Your task to perform on an android device: open app "Paramount+ | Peak Streaming" Image 0: 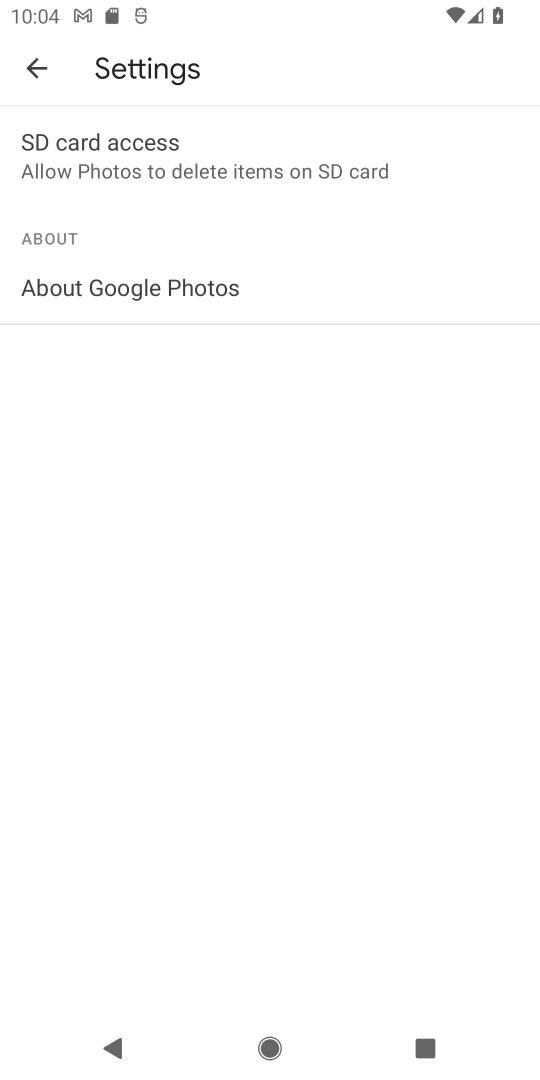
Step 0: press home button
Your task to perform on an android device: open app "Paramount+ | Peak Streaming" Image 1: 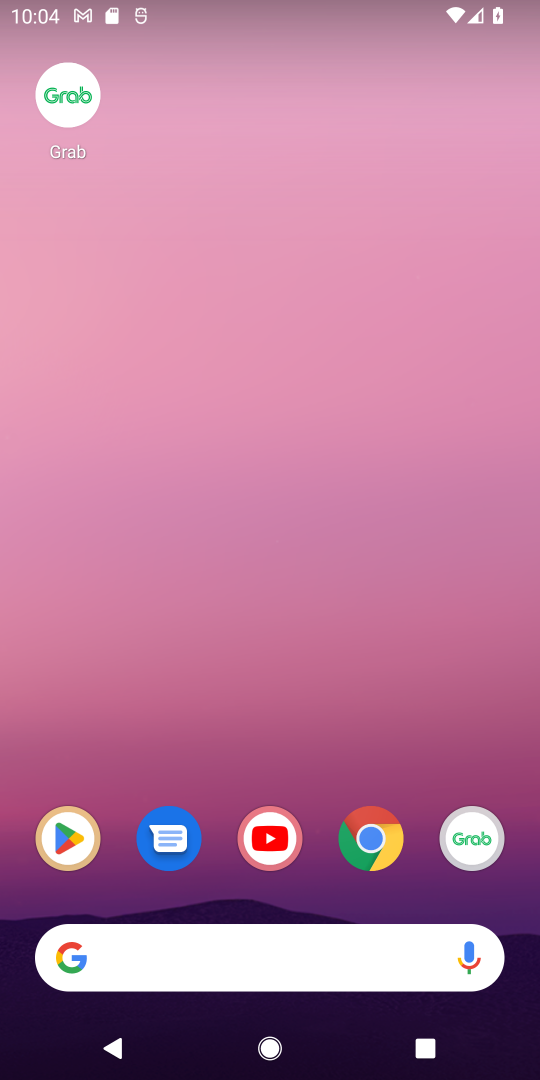
Step 1: click (76, 847)
Your task to perform on an android device: open app "Paramount+ | Peak Streaming" Image 2: 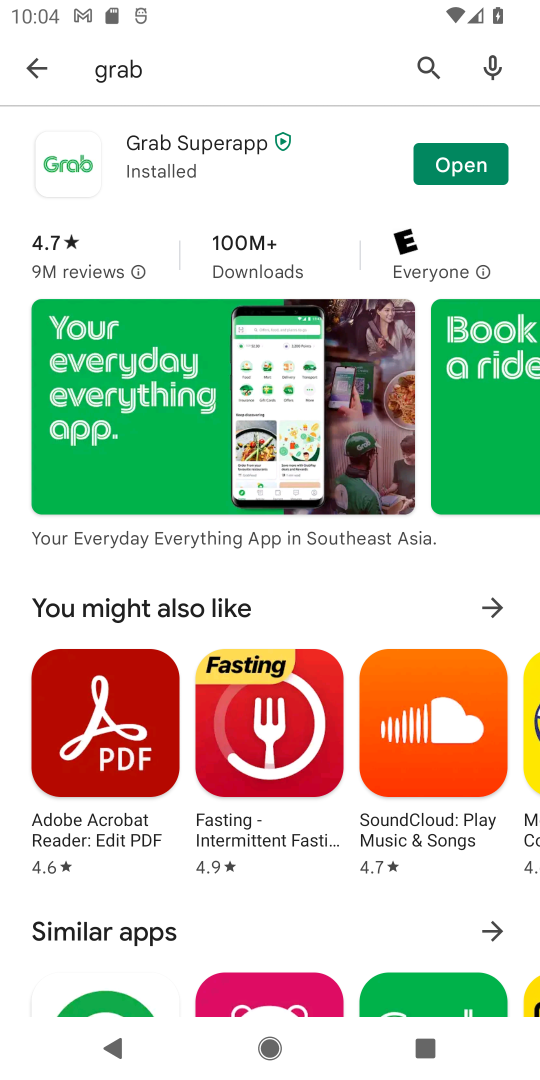
Step 2: click (210, 65)
Your task to perform on an android device: open app "Paramount+ | Peak Streaming" Image 3: 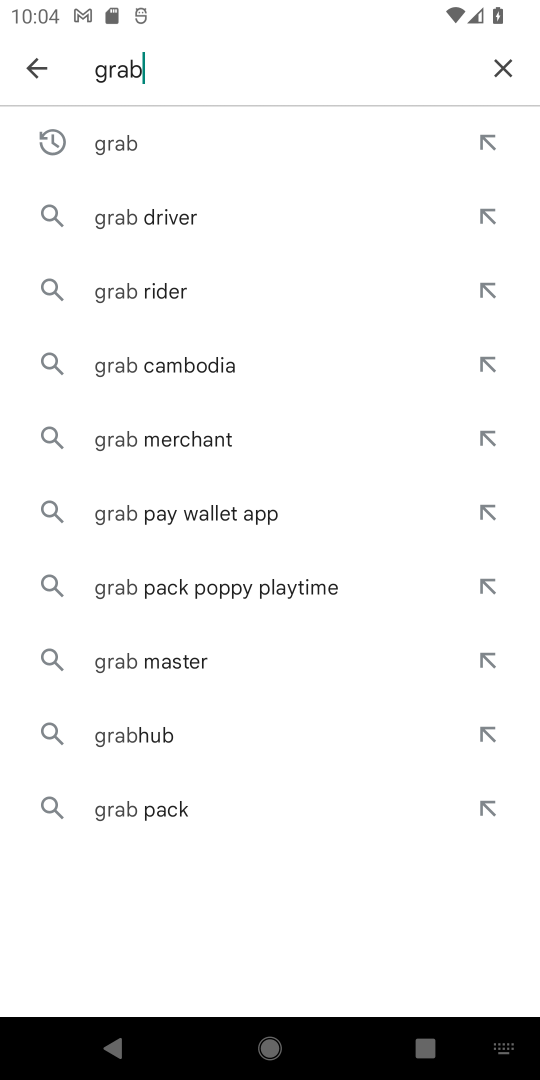
Step 3: click (509, 69)
Your task to perform on an android device: open app "Paramount+ | Peak Streaming" Image 4: 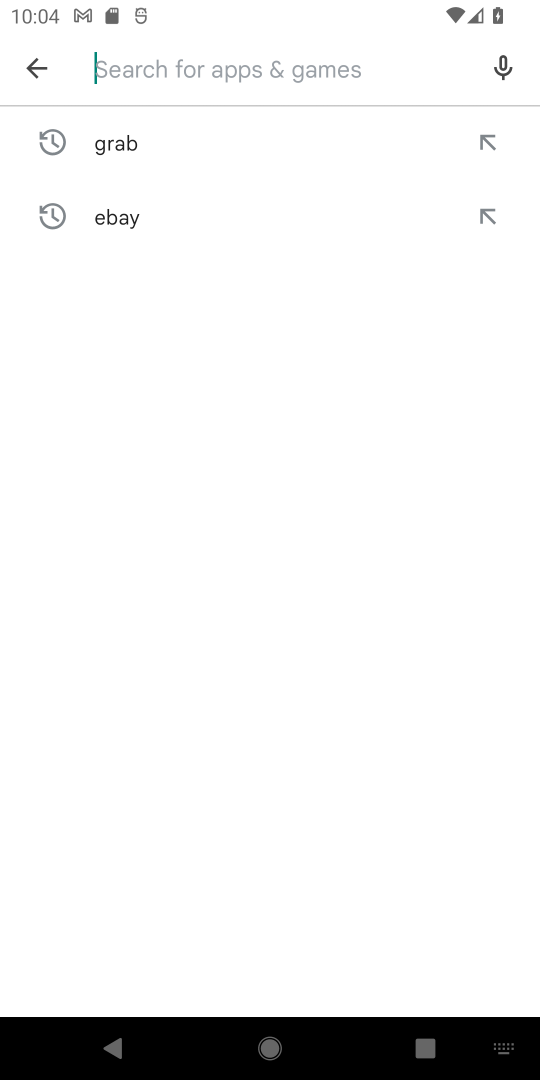
Step 4: type "paramount+"
Your task to perform on an android device: open app "Paramount+ | Peak Streaming" Image 5: 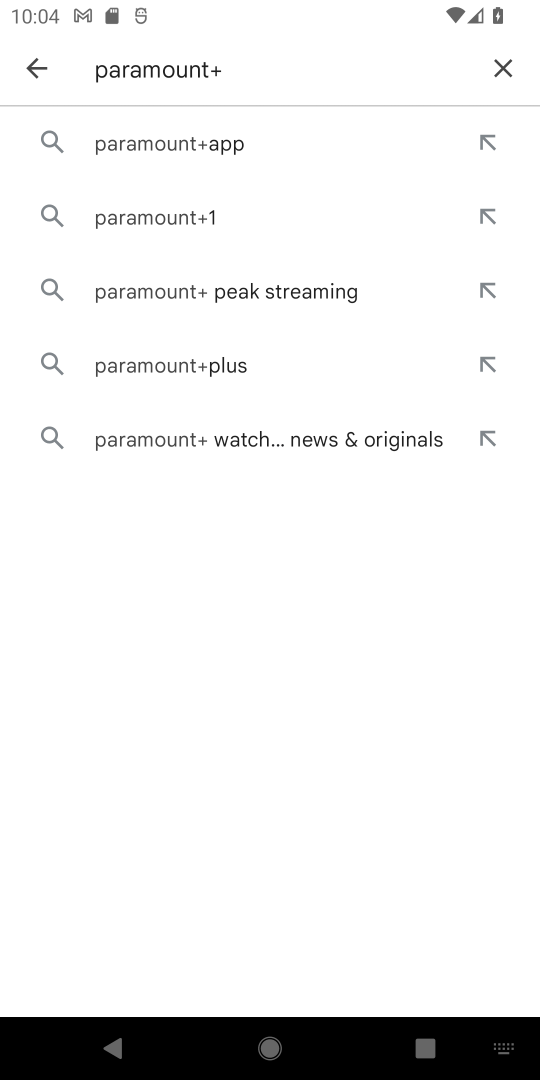
Step 5: click (143, 148)
Your task to perform on an android device: open app "Paramount+ | Peak Streaming" Image 6: 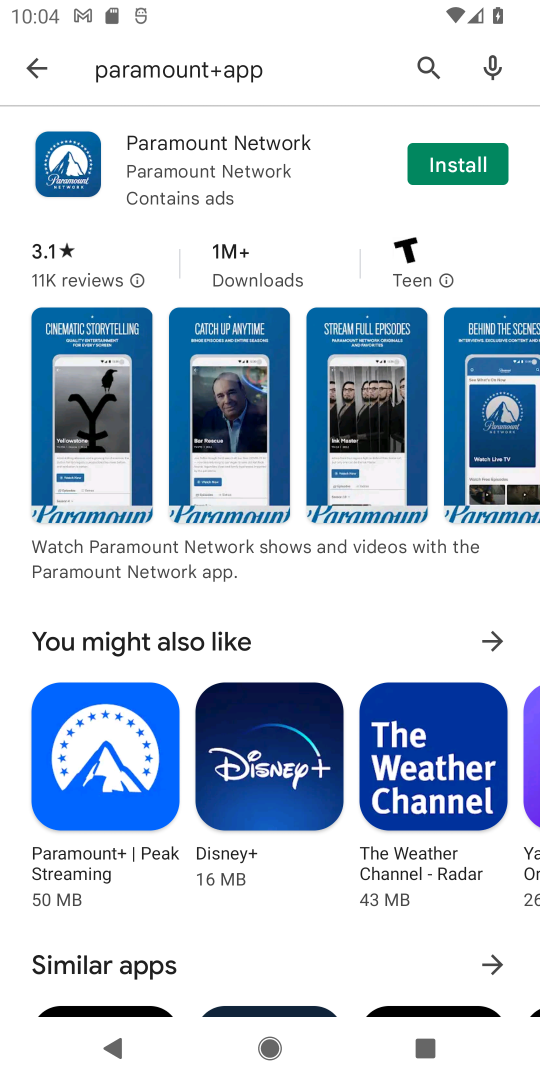
Step 6: task complete